Your task to perform on an android device: Open sound settings Image 0: 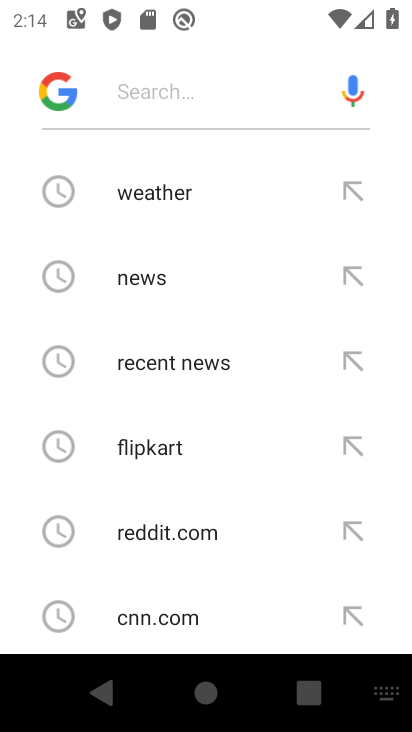
Step 0: press home button
Your task to perform on an android device: Open sound settings Image 1: 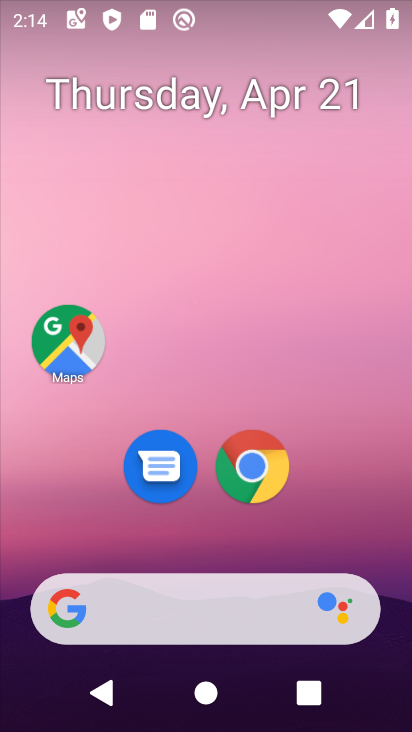
Step 1: drag from (260, 577) to (260, 0)
Your task to perform on an android device: Open sound settings Image 2: 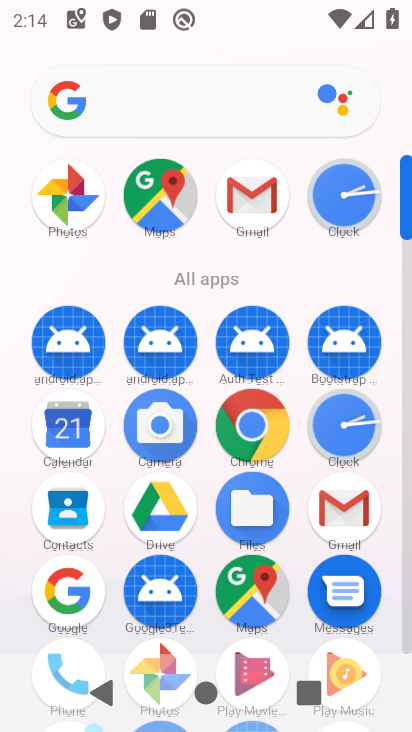
Step 2: click (344, 274)
Your task to perform on an android device: Open sound settings Image 3: 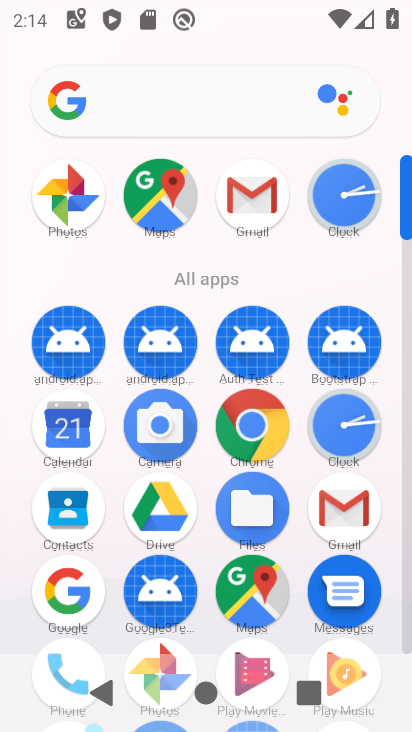
Step 3: drag from (306, 598) to (283, 261)
Your task to perform on an android device: Open sound settings Image 4: 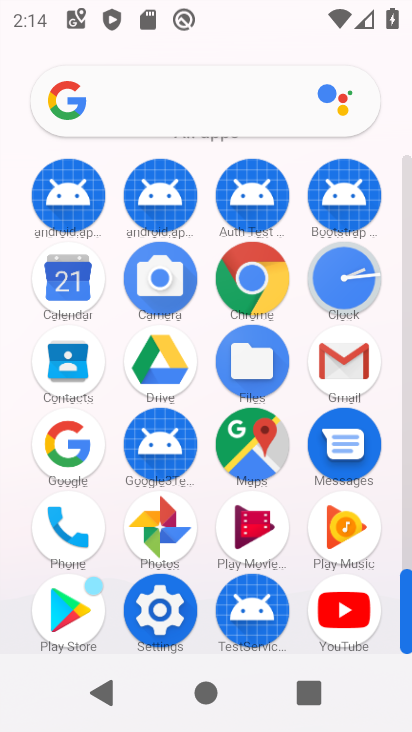
Step 4: click (140, 601)
Your task to perform on an android device: Open sound settings Image 5: 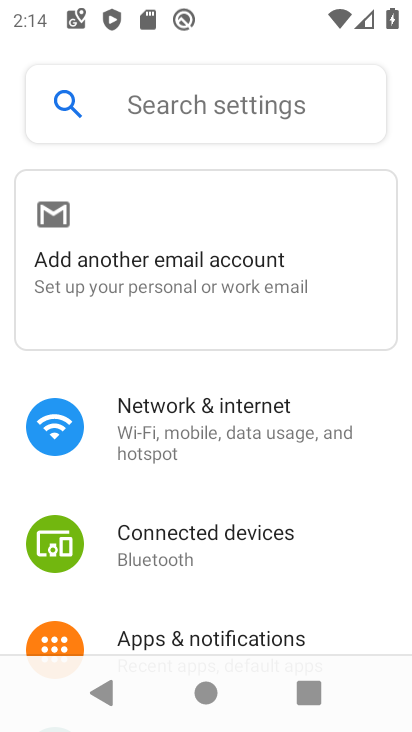
Step 5: drag from (238, 613) to (254, 244)
Your task to perform on an android device: Open sound settings Image 6: 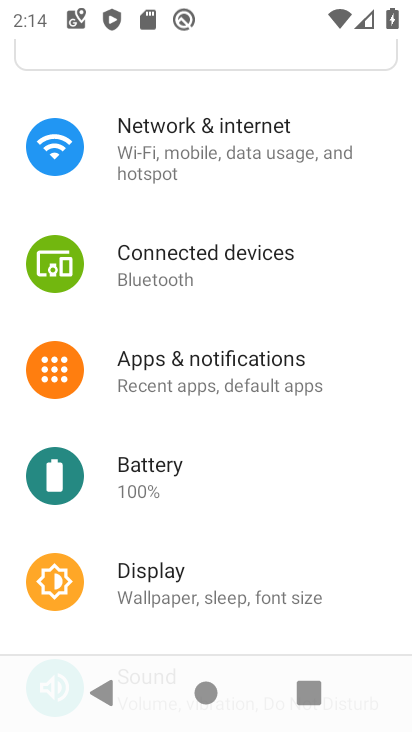
Step 6: drag from (261, 582) to (297, 115)
Your task to perform on an android device: Open sound settings Image 7: 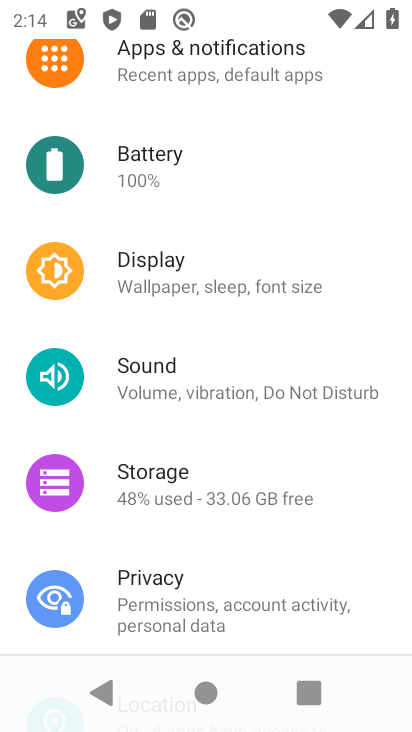
Step 7: click (166, 363)
Your task to perform on an android device: Open sound settings Image 8: 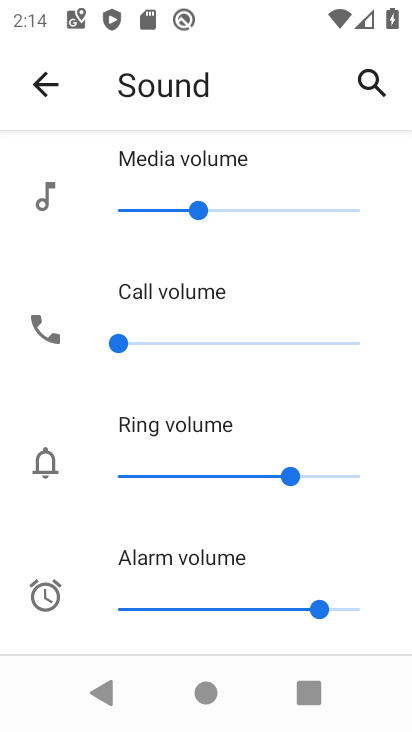
Step 8: task complete